Your task to perform on an android device: Is it going to rain tomorrow? Image 0: 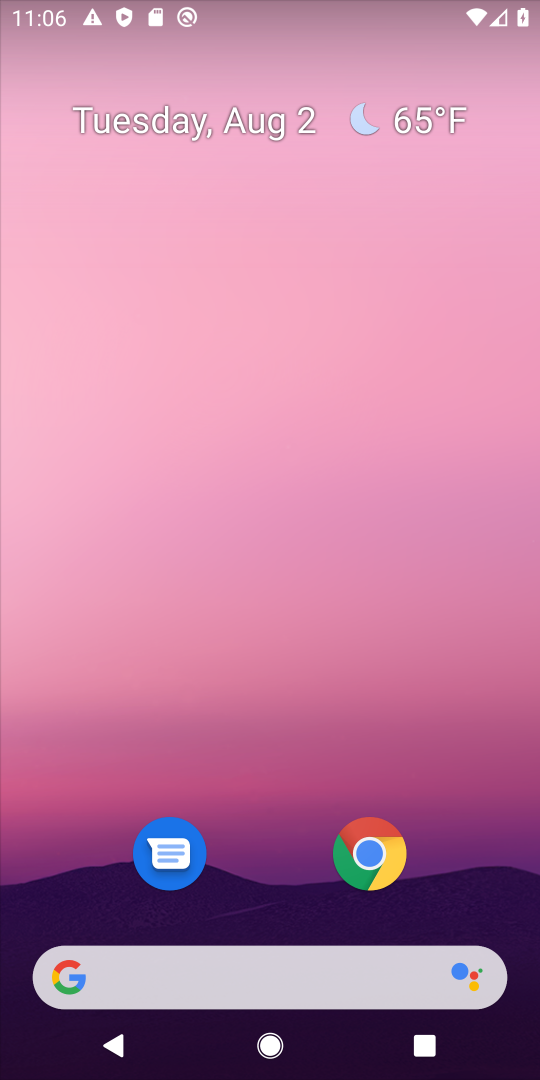
Step 0: click (340, 861)
Your task to perform on an android device: Is it going to rain tomorrow? Image 1: 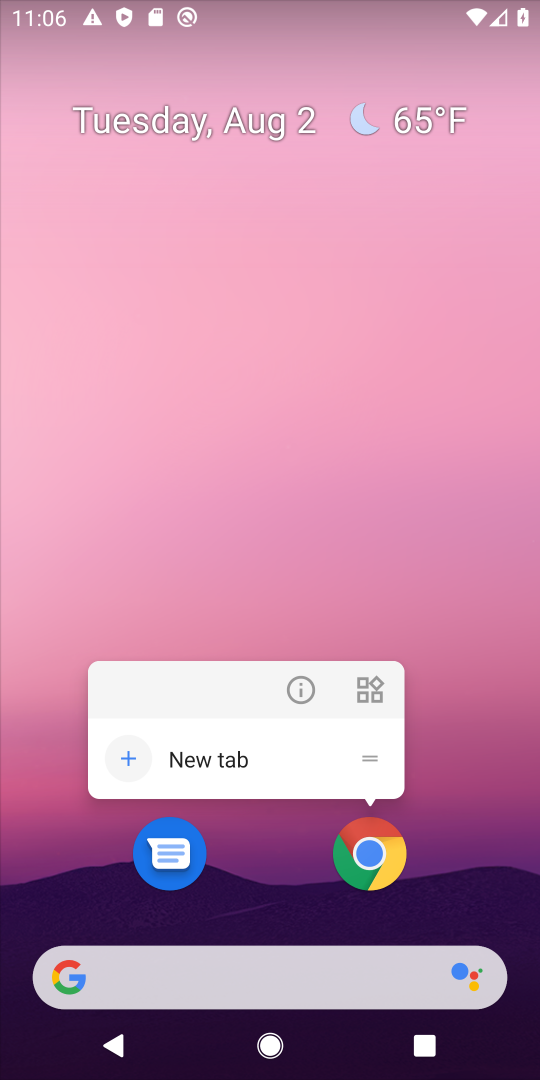
Step 1: click (337, 866)
Your task to perform on an android device: Is it going to rain tomorrow? Image 2: 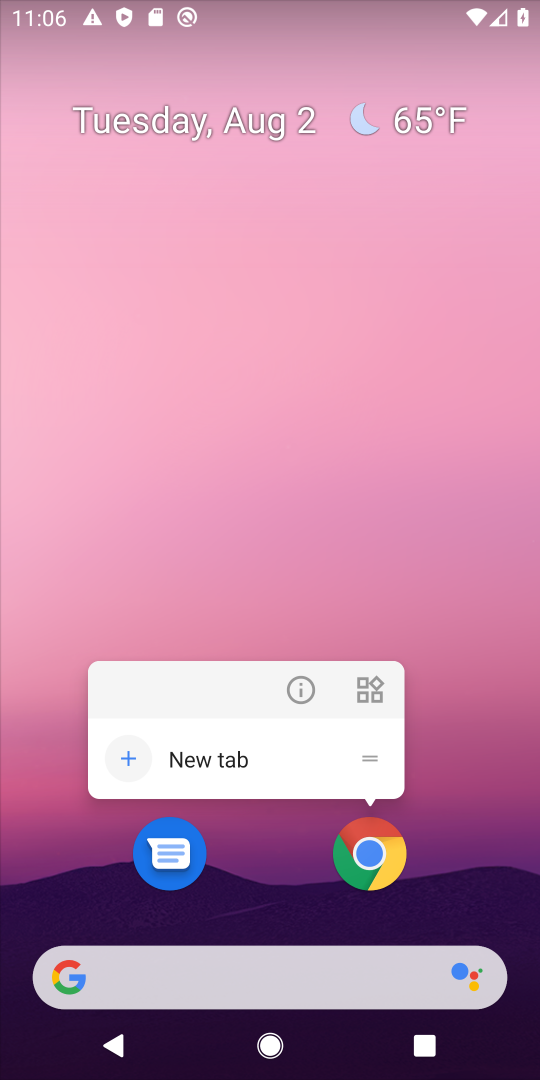
Step 2: click (337, 866)
Your task to perform on an android device: Is it going to rain tomorrow? Image 3: 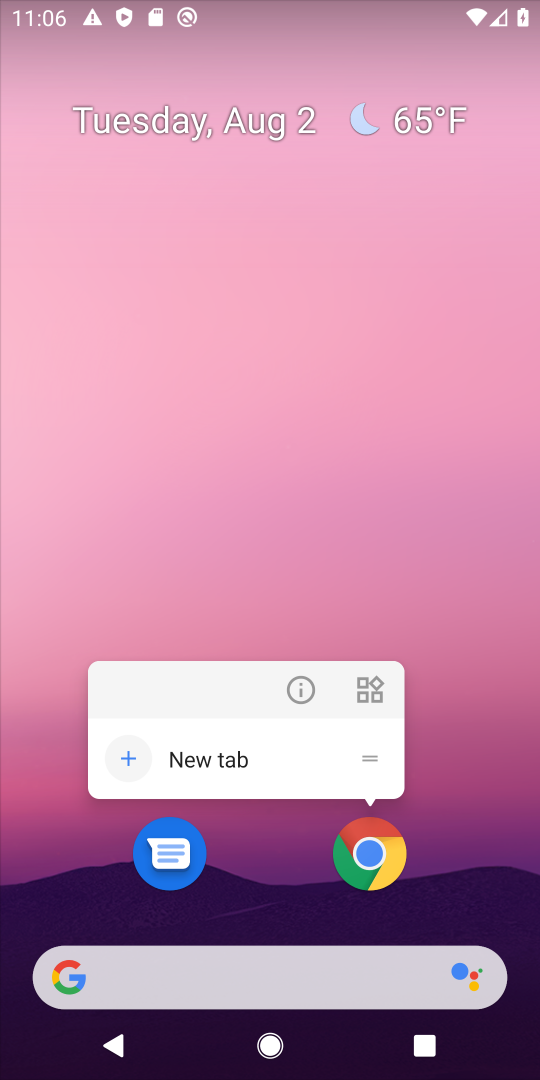
Step 3: click (337, 866)
Your task to perform on an android device: Is it going to rain tomorrow? Image 4: 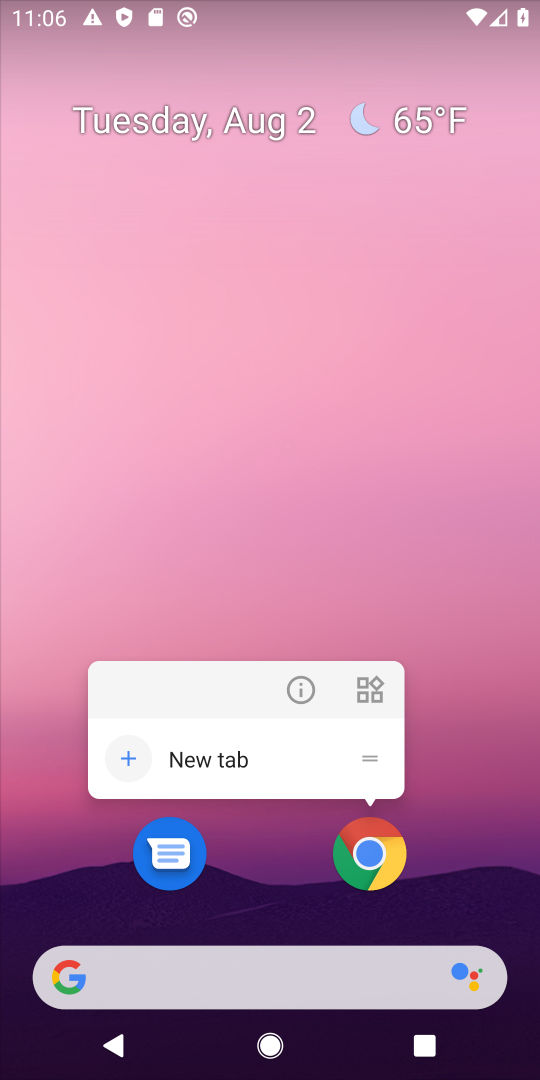
Step 4: click (337, 866)
Your task to perform on an android device: Is it going to rain tomorrow? Image 5: 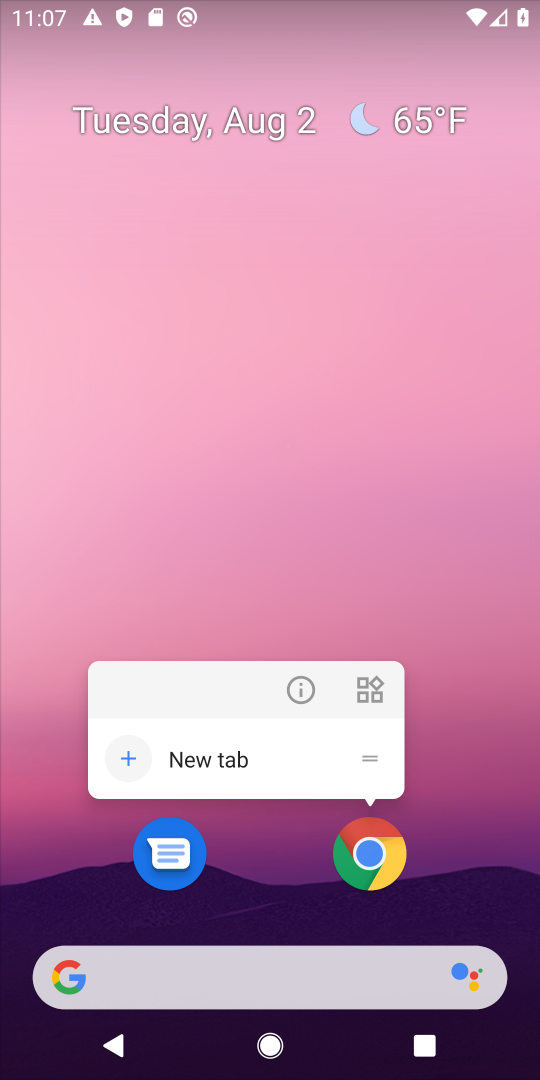
Step 5: click (401, 845)
Your task to perform on an android device: Is it going to rain tomorrow? Image 6: 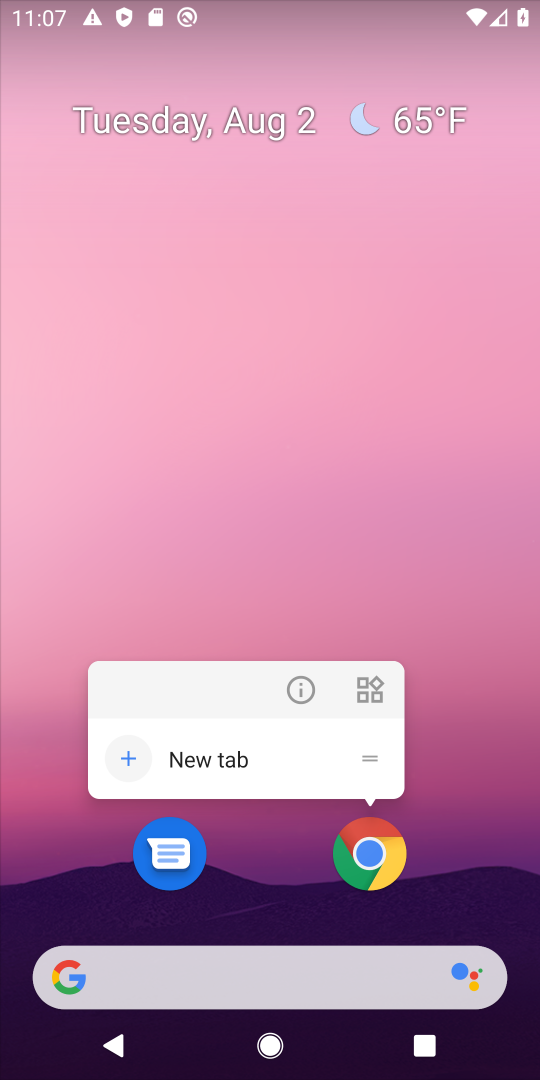
Step 6: click (401, 845)
Your task to perform on an android device: Is it going to rain tomorrow? Image 7: 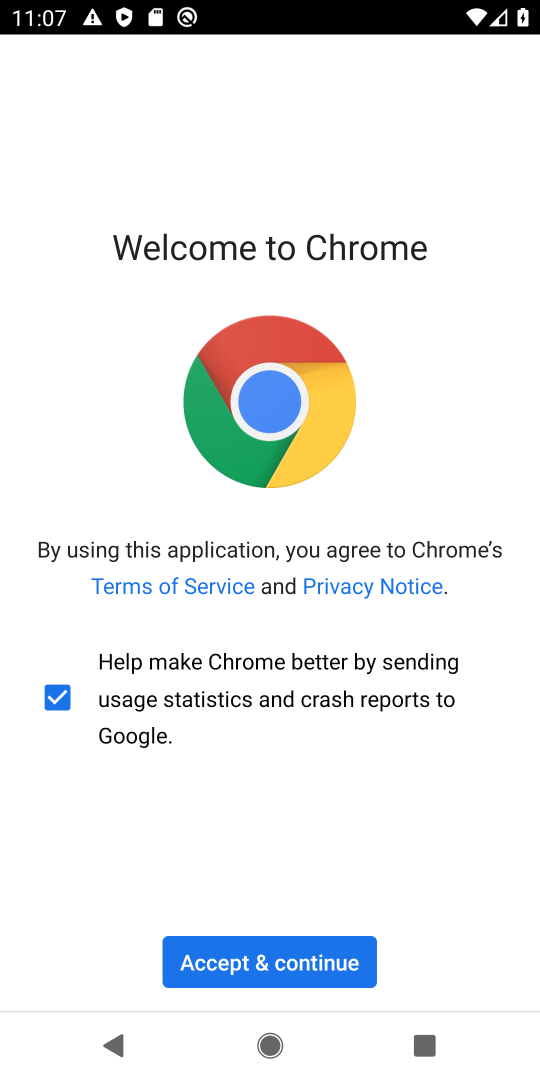
Step 7: click (347, 951)
Your task to perform on an android device: Is it going to rain tomorrow? Image 8: 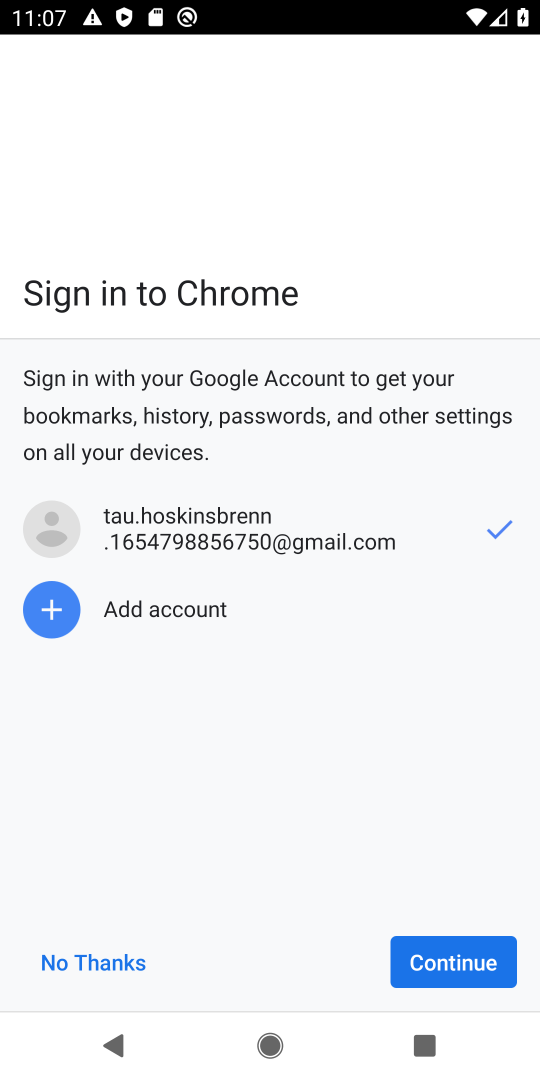
Step 8: click (489, 988)
Your task to perform on an android device: Is it going to rain tomorrow? Image 9: 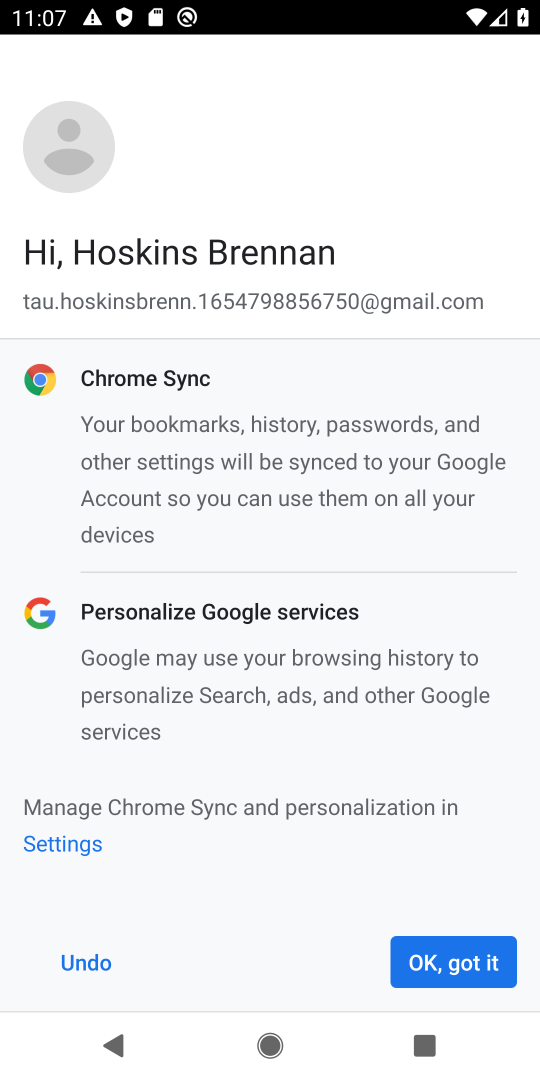
Step 9: click (489, 988)
Your task to perform on an android device: Is it going to rain tomorrow? Image 10: 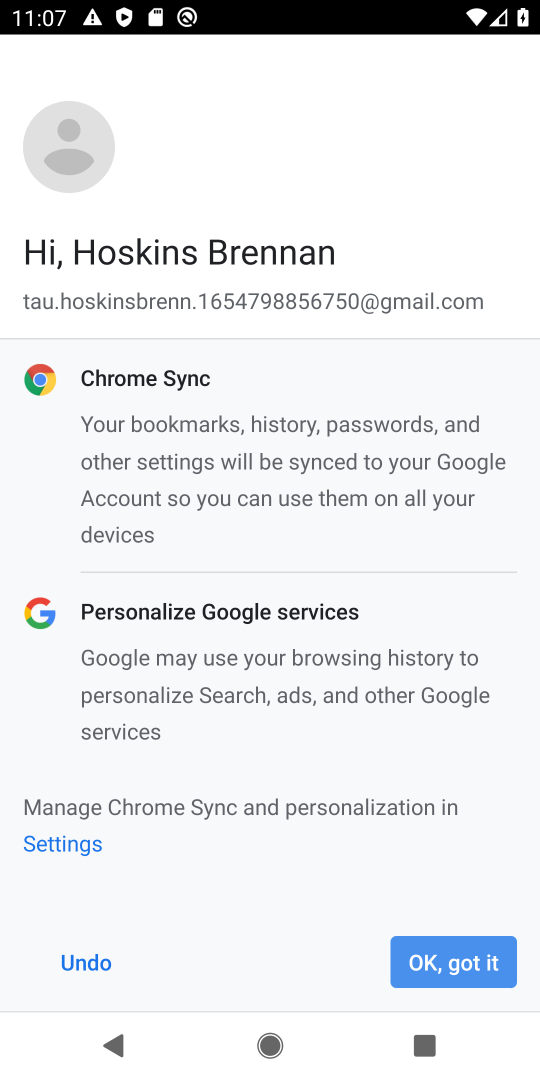
Step 10: click (489, 988)
Your task to perform on an android device: Is it going to rain tomorrow? Image 11: 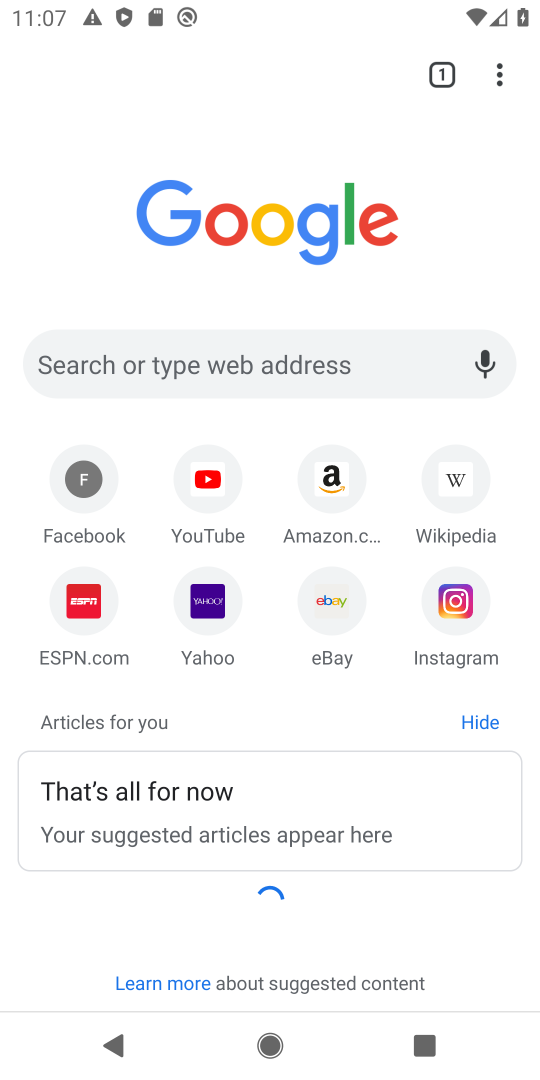
Step 11: click (304, 361)
Your task to perform on an android device: Is it going to rain tomorrow? Image 12: 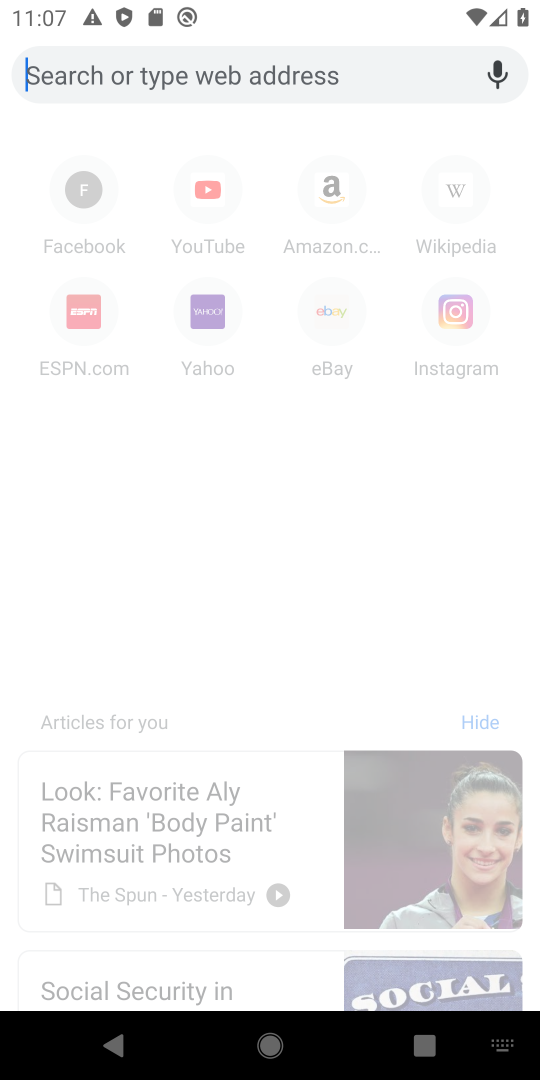
Step 12: type "Is it going to rain tomorrow?"
Your task to perform on an android device: Is it going to rain tomorrow? Image 13: 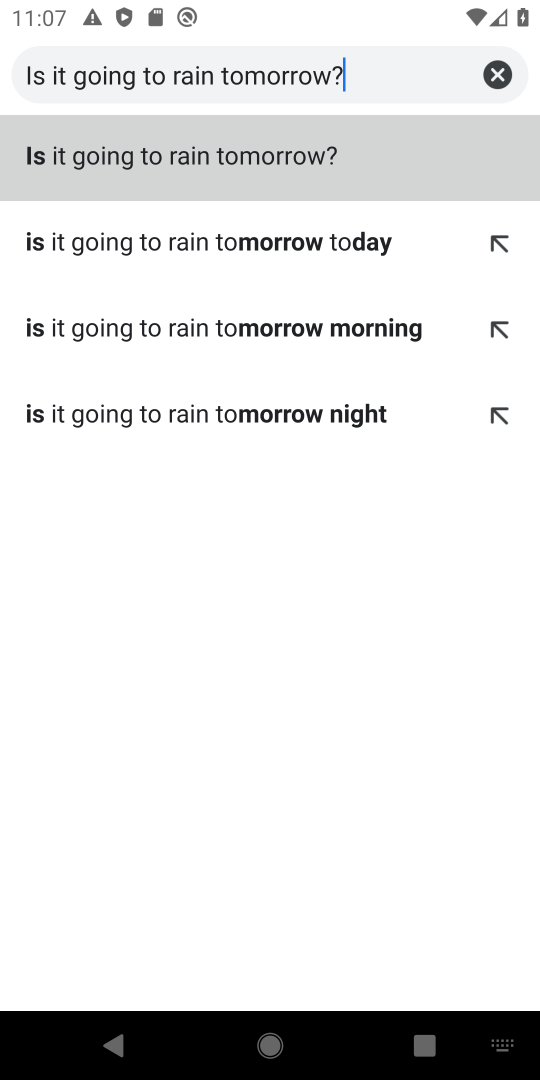
Step 13: type ""
Your task to perform on an android device: Is it going to rain tomorrow? Image 14: 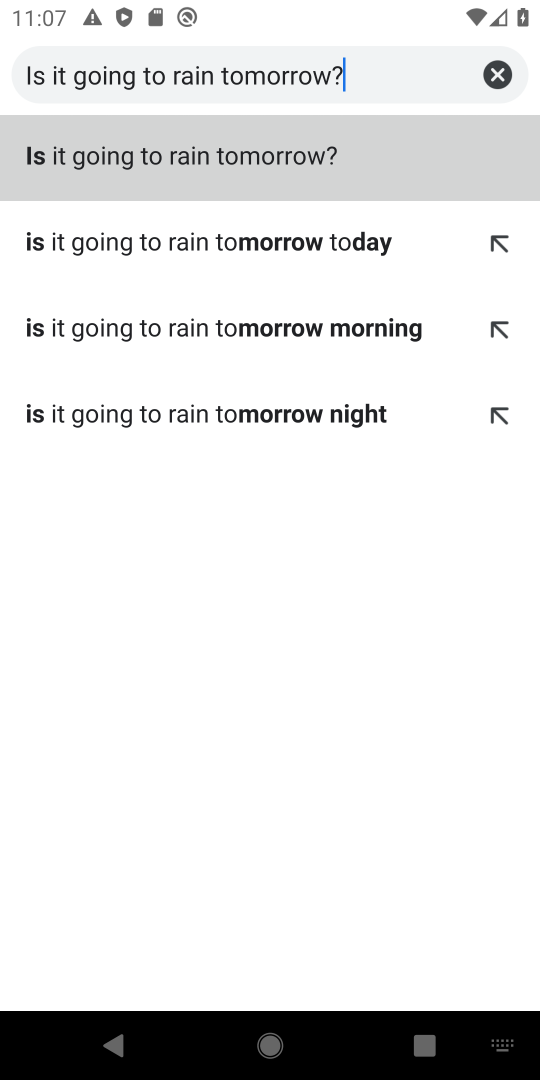
Step 14: click (66, 182)
Your task to perform on an android device: Is it going to rain tomorrow? Image 15: 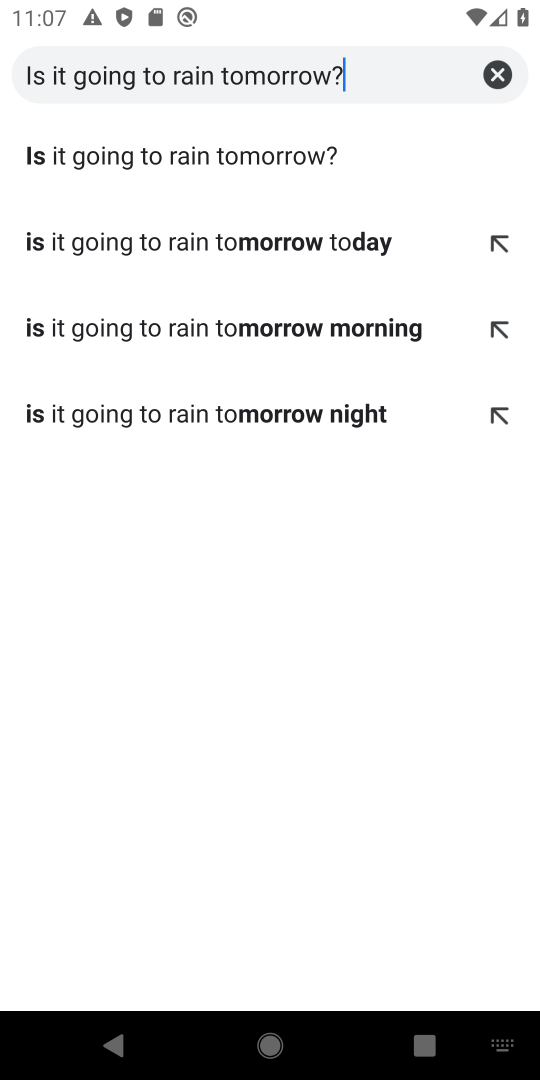
Step 15: click (43, 152)
Your task to perform on an android device: Is it going to rain tomorrow? Image 16: 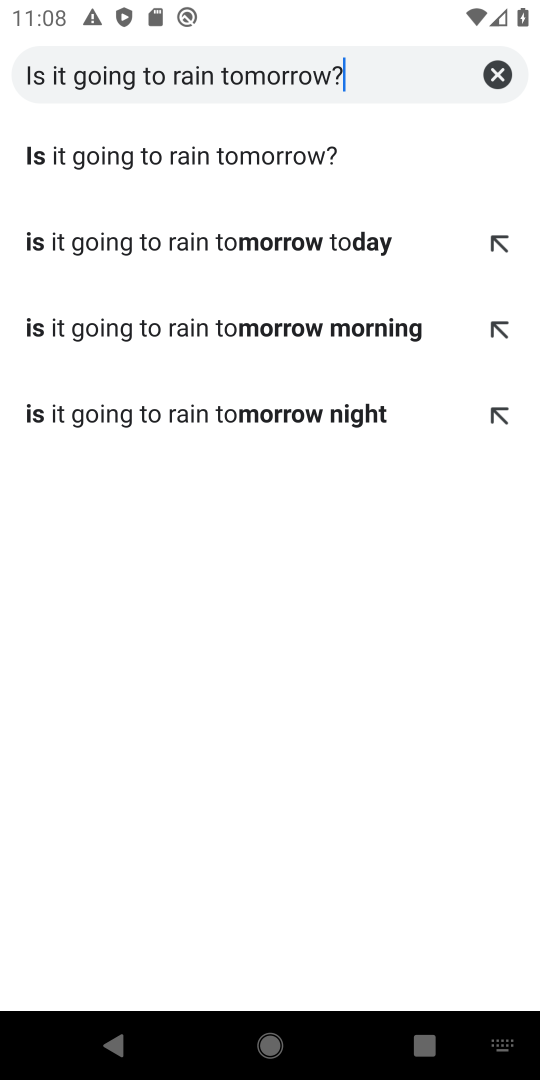
Step 16: click (43, 152)
Your task to perform on an android device: Is it going to rain tomorrow? Image 17: 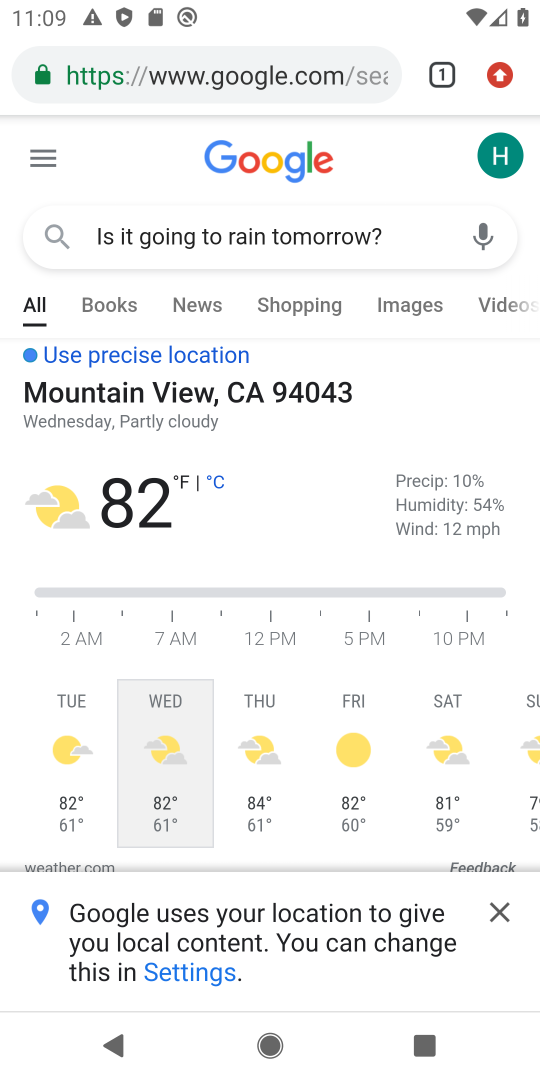
Step 17: task complete